Your task to perform on an android device: Open Google Maps Image 0: 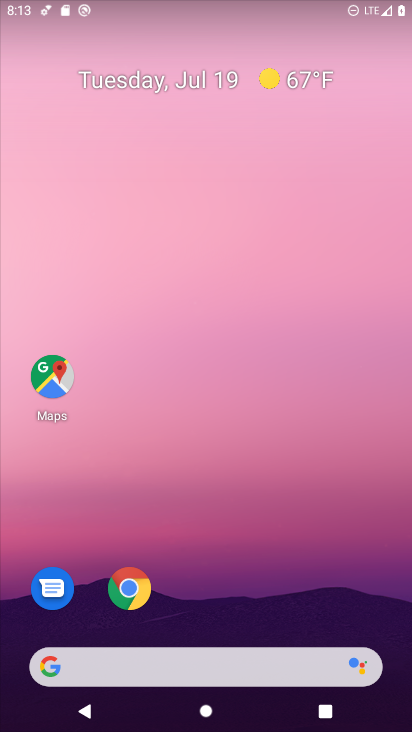
Step 0: drag from (352, 608) to (397, 94)
Your task to perform on an android device: Open Google Maps Image 1: 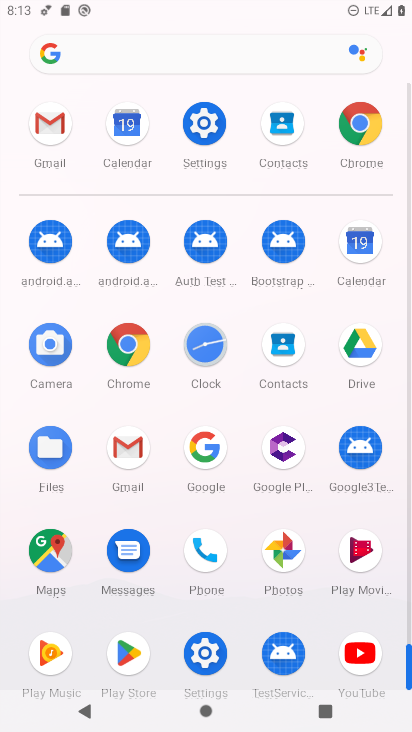
Step 1: click (49, 555)
Your task to perform on an android device: Open Google Maps Image 2: 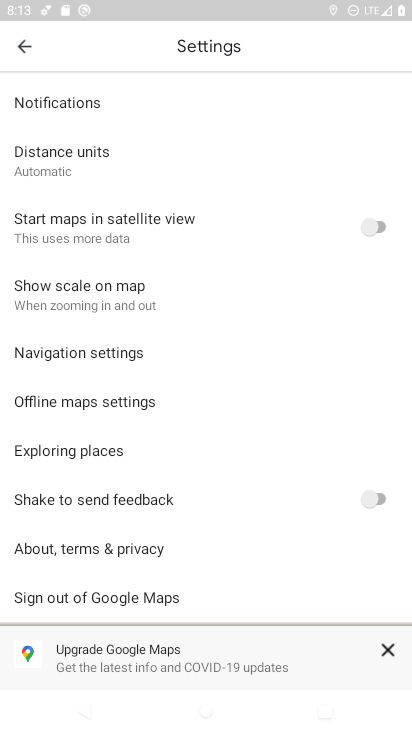
Step 2: task complete